Your task to perform on an android device: Open Wikipedia Image 0: 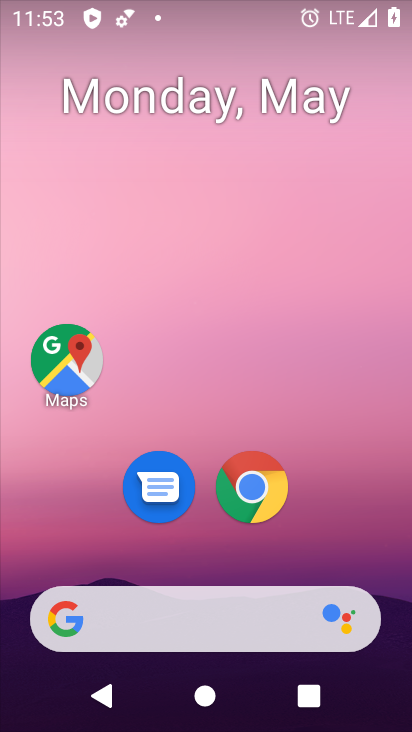
Step 0: click (247, 477)
Your task to perform on an android device: Open Wikipedia Image 1: 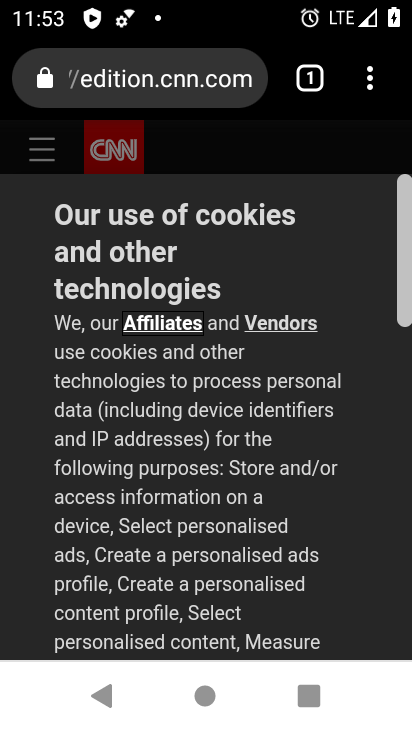
Step 1: click (326, 85)
Your task to perform on an android device: Open Wikipedia Image 2: 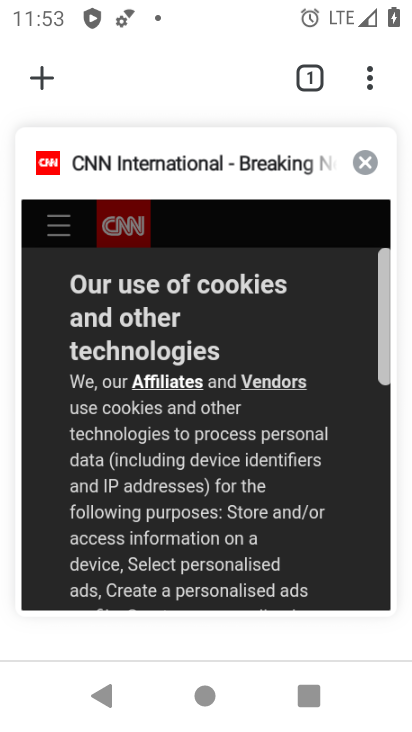
Step 2: click (370, 160)
Your task to perform on an android device: Open Wikipedia Image 3: 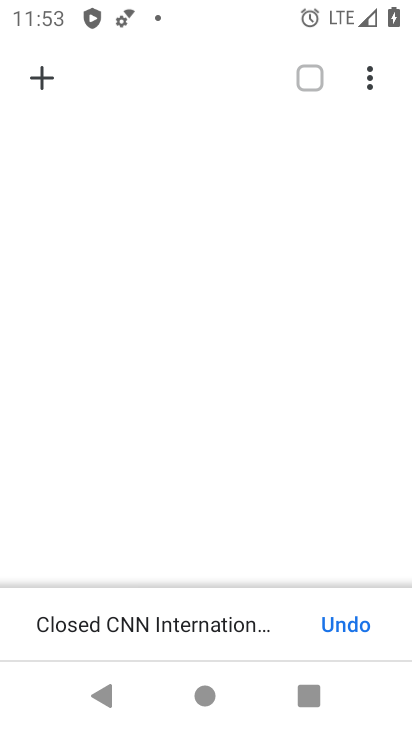
Step 3: click (47, 85)
Your task to perform on an android device: Open Wikipedia Image 4: 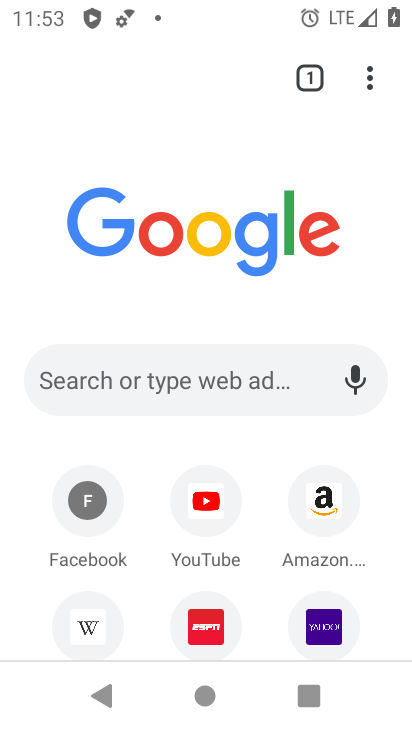
Step 4: click (71, 624)
Your task to perform on an android device: Open Wikipedia Image 5: 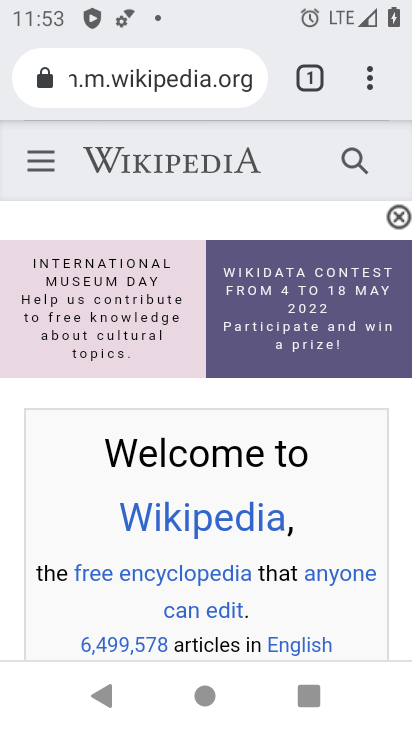
Step 5: task complete